Your task to perform on an android device: What is the news today? Image 0: 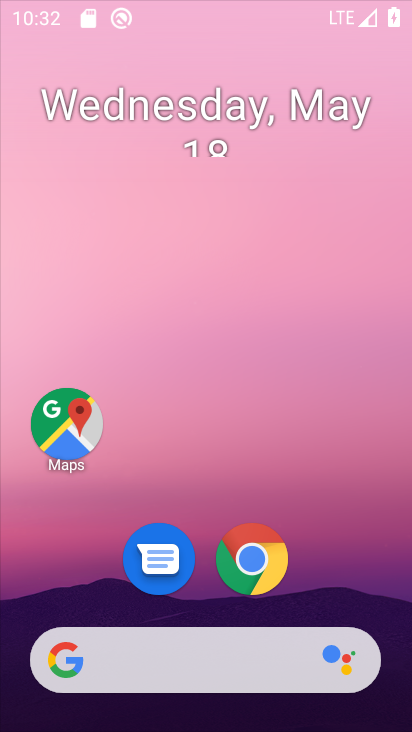
Step 0: click (251, 150)
Your task to perform on an android device: What is the news today? Image 1: 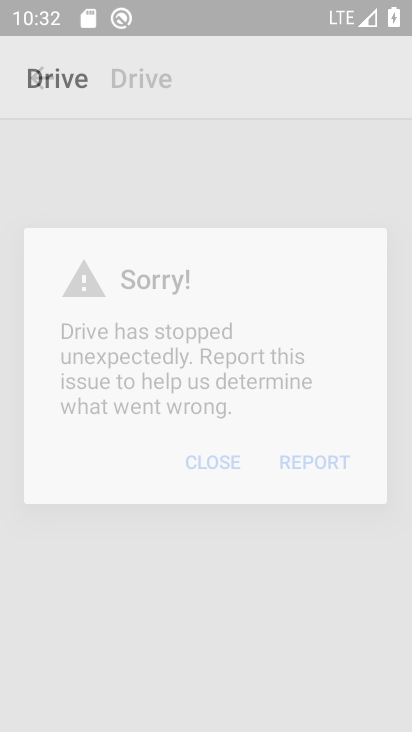
Step 1: drag from (233, 565) to (243, 411)
Your task to perform on an android device: What is the news today? Image 2: 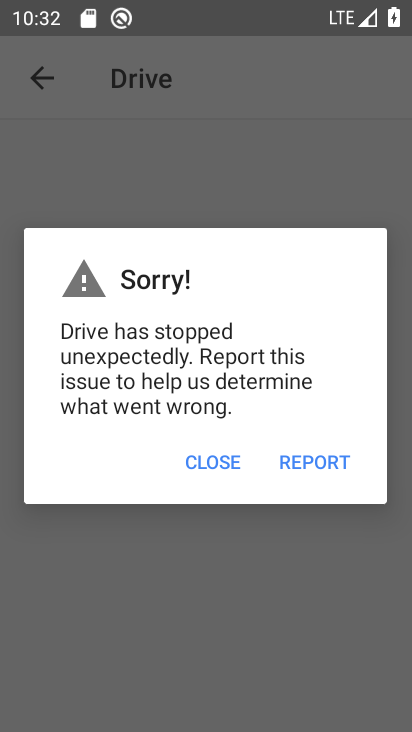
Step 2: press home button
Your task to perform on an android device: What is the news today? Image 3: 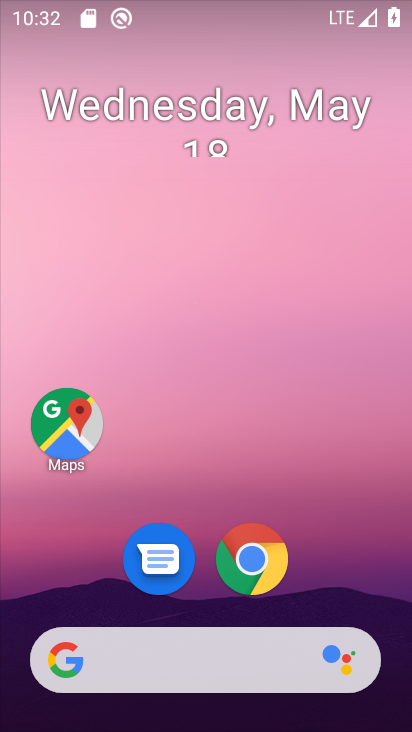
Step 3: click (192, 642)
Your task to perform on an android device: What is the news today? Image 4: 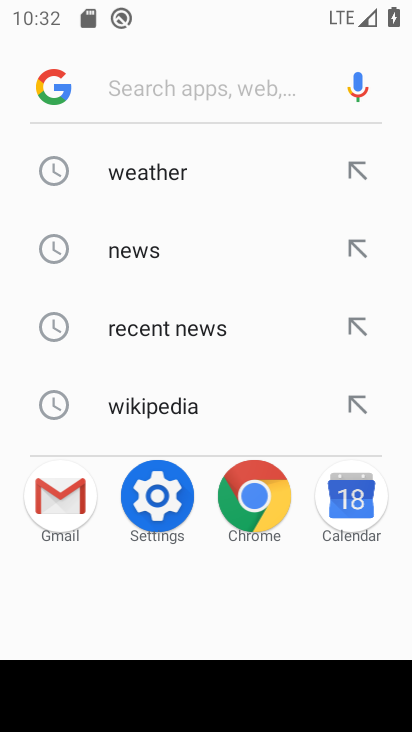
Step 4: type "news today?"
Your task to perform on an android device: What is the news today? Image 5: 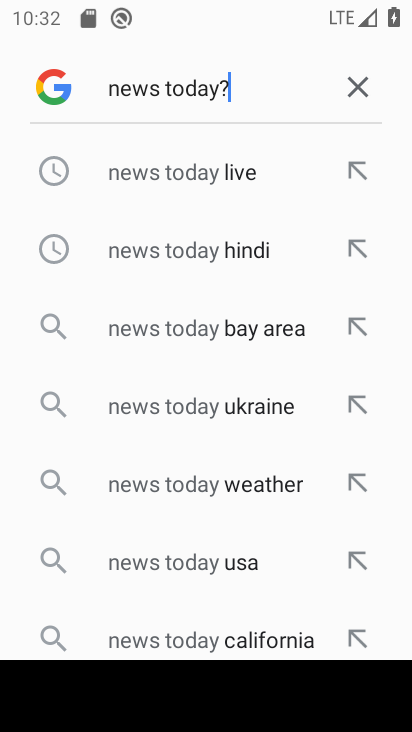
Step 5: click (213, 185)
Your task to perform on an android device: What is the news today? Image 6: 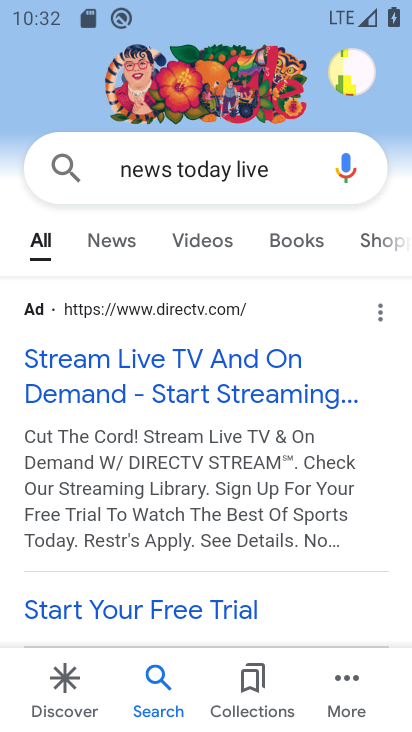
Step 6: task complete